Your task to perform on an android device: toggle data saver in the chrome app Image 0: 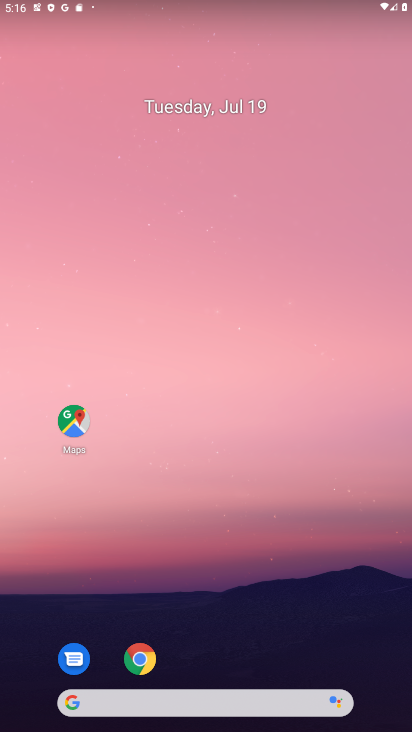
Step 0: drag from (250, 559) to (212, 249)
Your task to perform on an android device: toggle data saver in the chrome app Image 1: 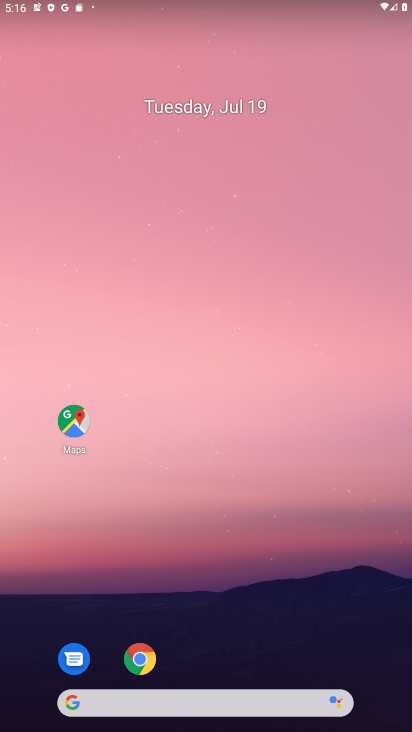
Step 1: drag from (255, 516) to (191, 253)
Your task to perform on an android device: toggle data saver in the chrome app Image 2: 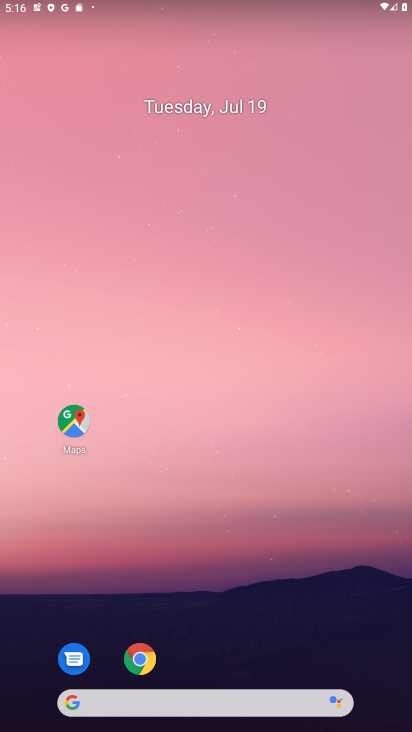
Step 2: drag from (219, 618) to (210, 79)
Your task to perform on an android device: toggle data saver in the chrome app Image 3: 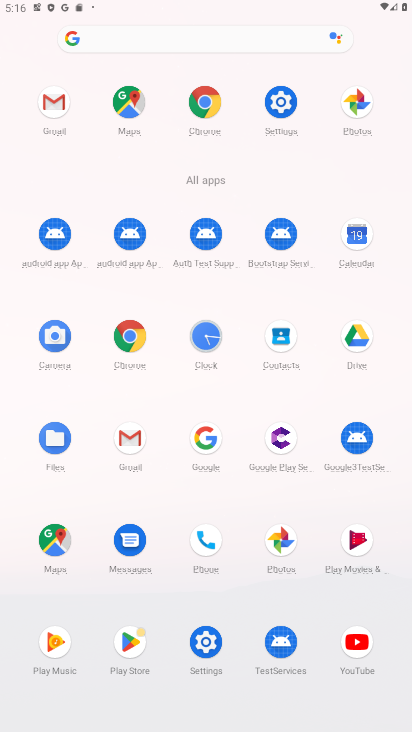
Step 3: click (204, 104)
Your task to perform on an android device: toggle data saver in the chrome app Image 4: 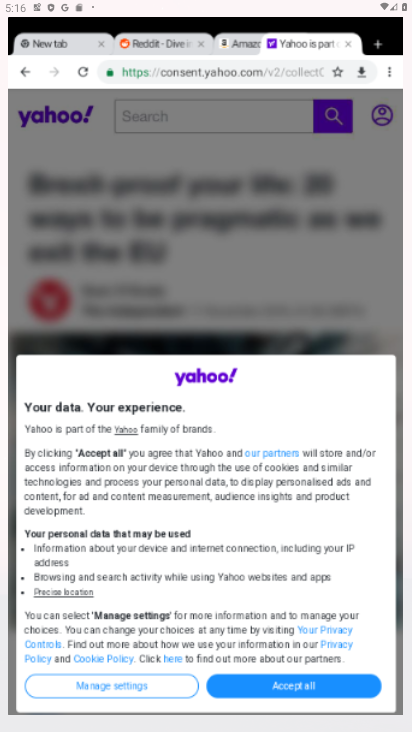
Step 4: click (202, 108)
Your task to perform on an android device: toggle data saver in the chrome app Image 5: 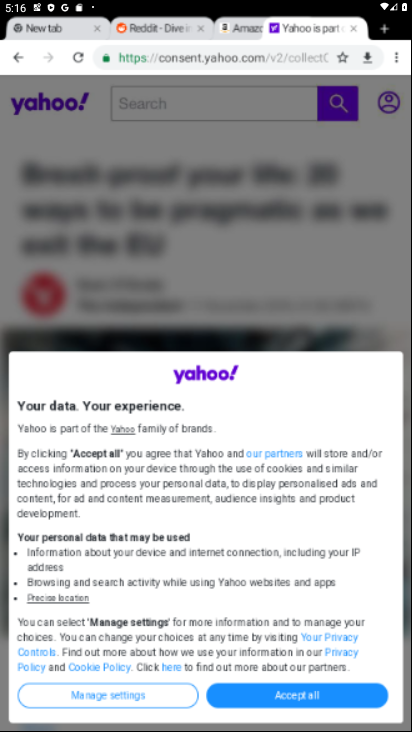
Step 5: click (202, 108)
Your task to perform on an android device: toggle data saver in the chrome app Image 6: 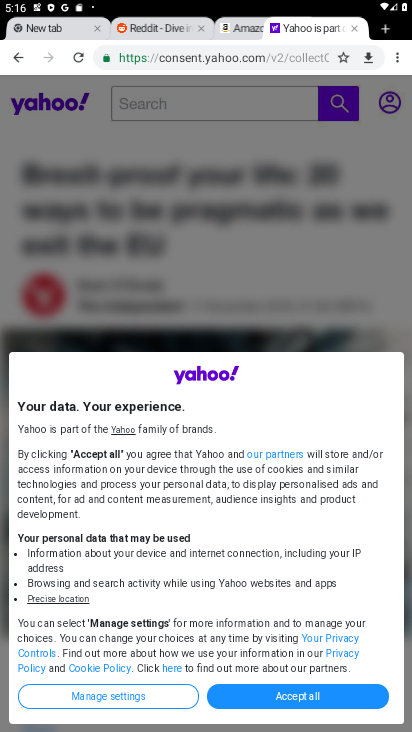
Step 6: drag from (391, 59) to (282, 377)
Your task to perform on an android device: toggle data saver in the chrome app Image 7: 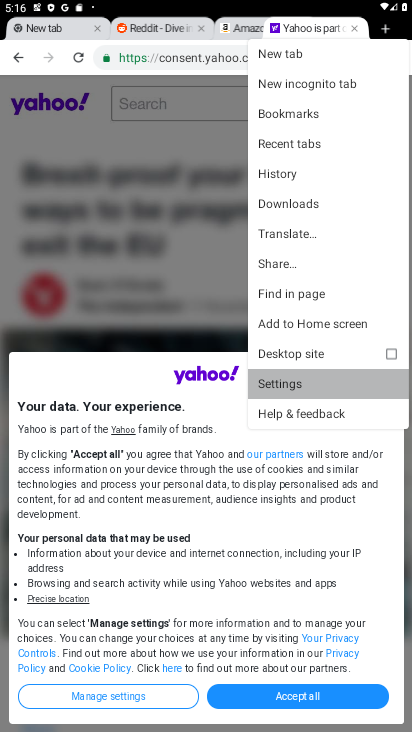
Step 7: click (282, 379)
Your task to perform on an android device: toggle data saver in the chrome app Image 8: 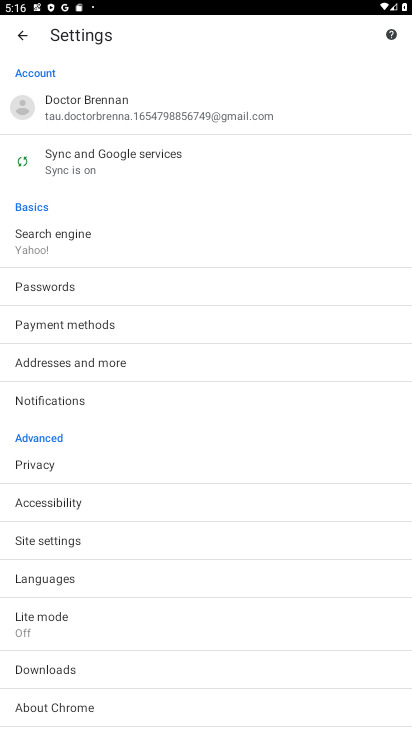
Step 8: click (271, 385)
Your task to perform on an android device: toggle data saver in the chrome app Image 9: 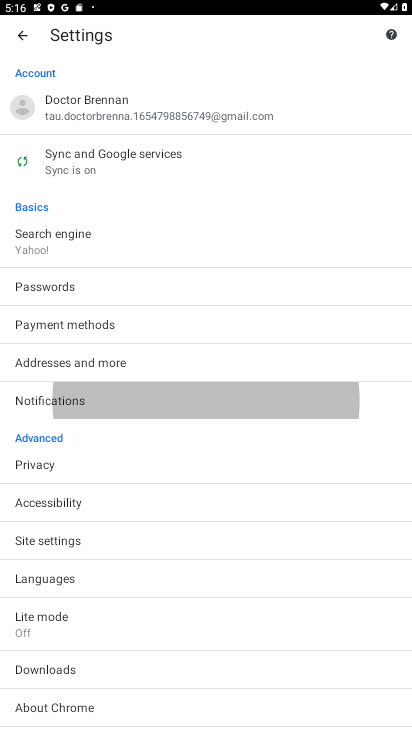
Step 9: click (272, 379)
Your task to perform on an android device: toggle data saver in the chrome app Image 10: 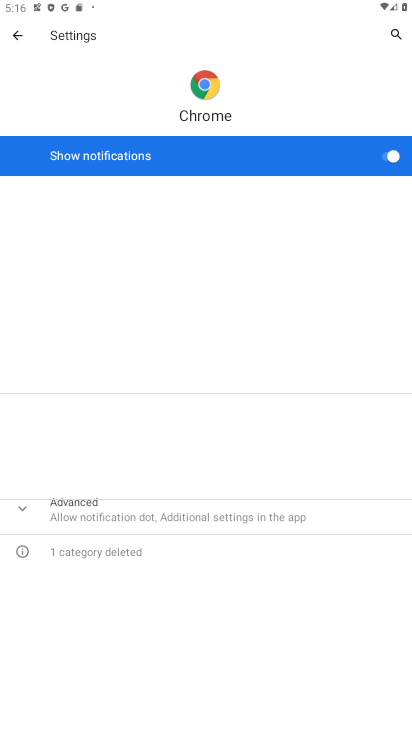
Step 10: click (271, 378)
Your task to perform on an android device: toggle data saver in the chrome app Image 11: 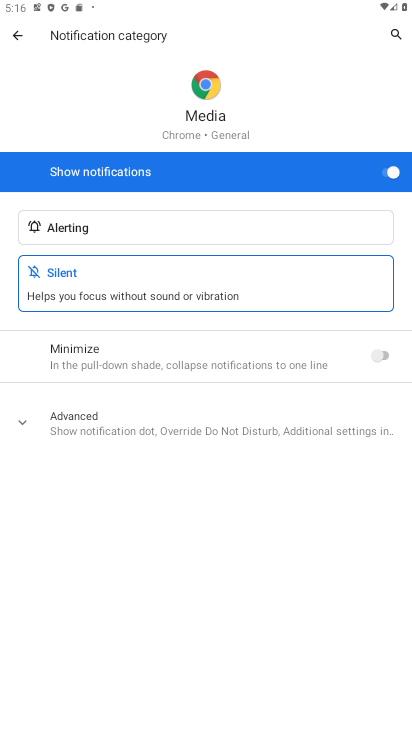
Step 11: click (31, 30)
Your task to perform on an android device: toggle data saver in the chrome app Image 12: 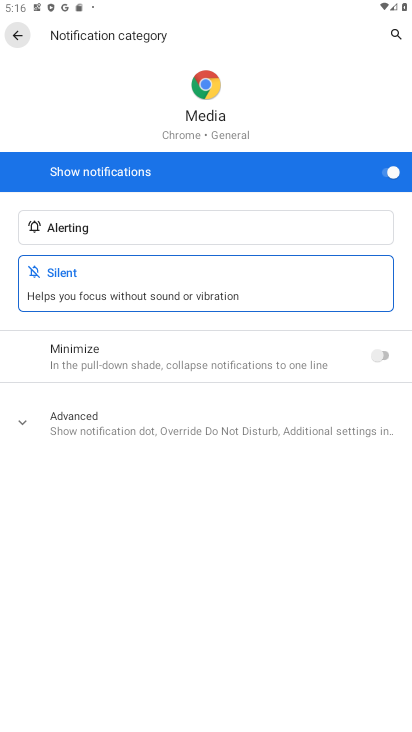
Step 12: click (25, 30)
Your task to perform on an android device: toggle data saver in the chrome app Image 13: 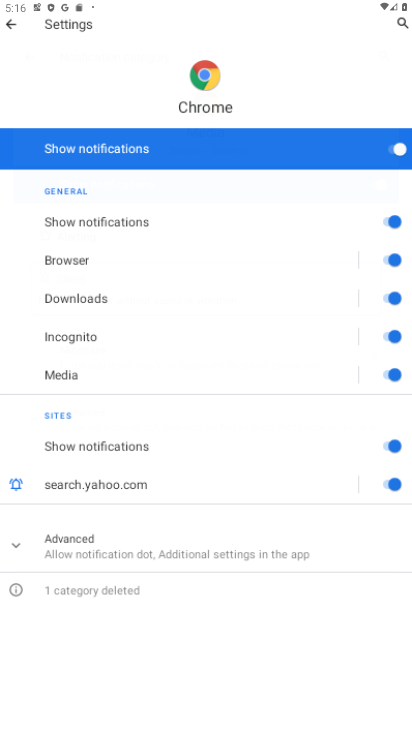
Step 13: click (25, 30)
Your task to perform on an android device: toggle data saver in the chrome app Image 14: 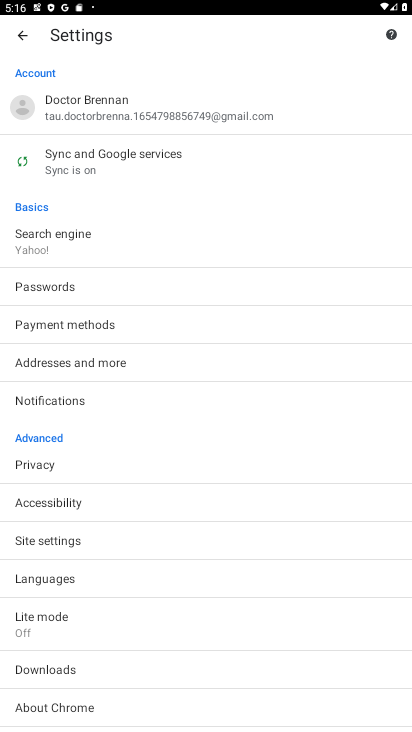
Step 14: click (61, 623)
Your task to perform on an android device: toggle data saver in the chrome app Image 15: 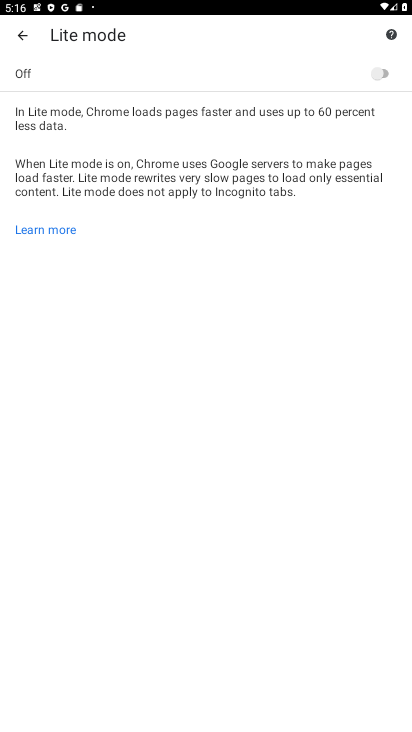
Step 15: click (372, 80)
Your task to perform on an android device: toggle data saver in the chrome app Image 16: 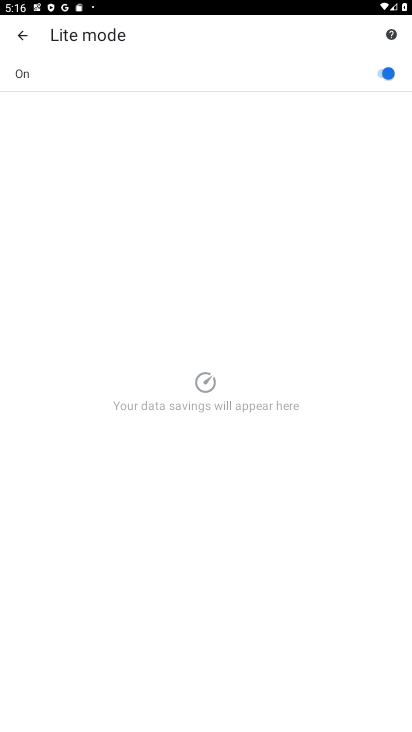
Step 16: task complete